Your task to perform on an android device: Add apple airpods pro to the cart on costco, then select checkout. Image 0: 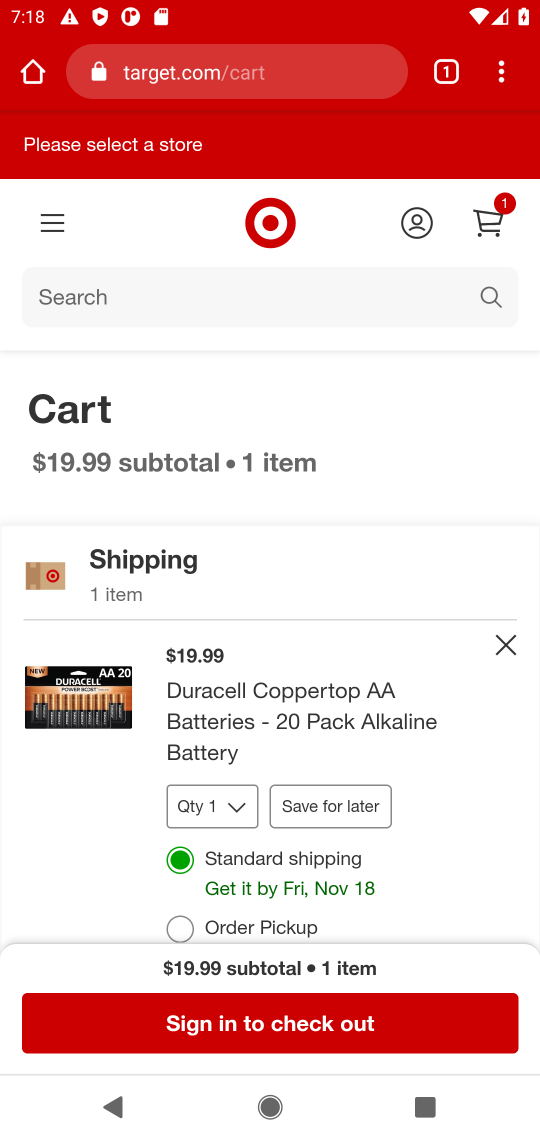
Step 0: click (441, 50)
Your task to perform on an android device: Add apple airpods pro to the cart on costco, then select checkout. Image 1: 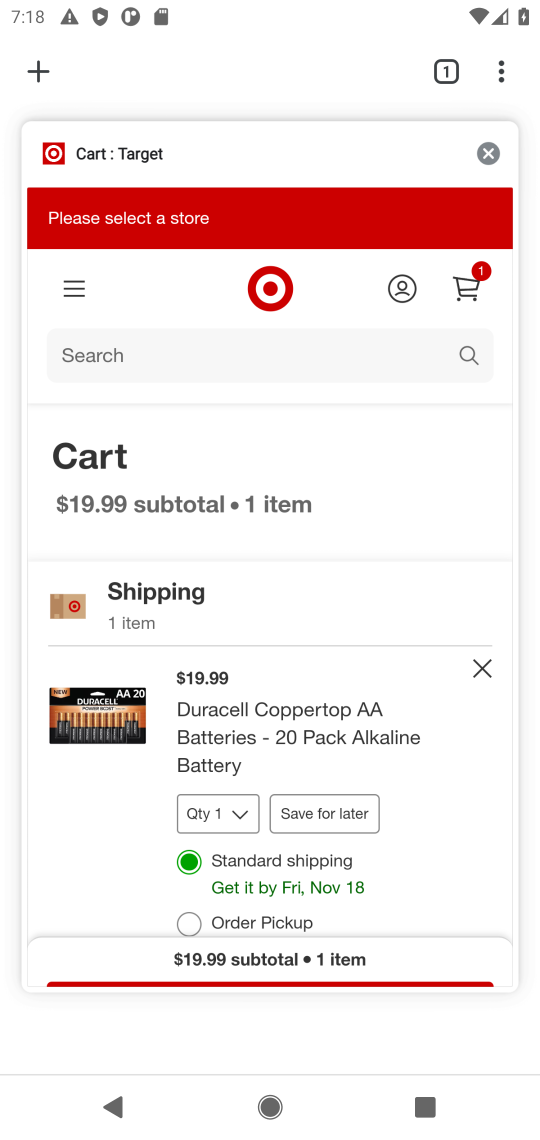
Step 1: click (17, 56)
Your task to perform on an android device: Add apple airpods pro to the cart on costco, then select checkout. Image 2: 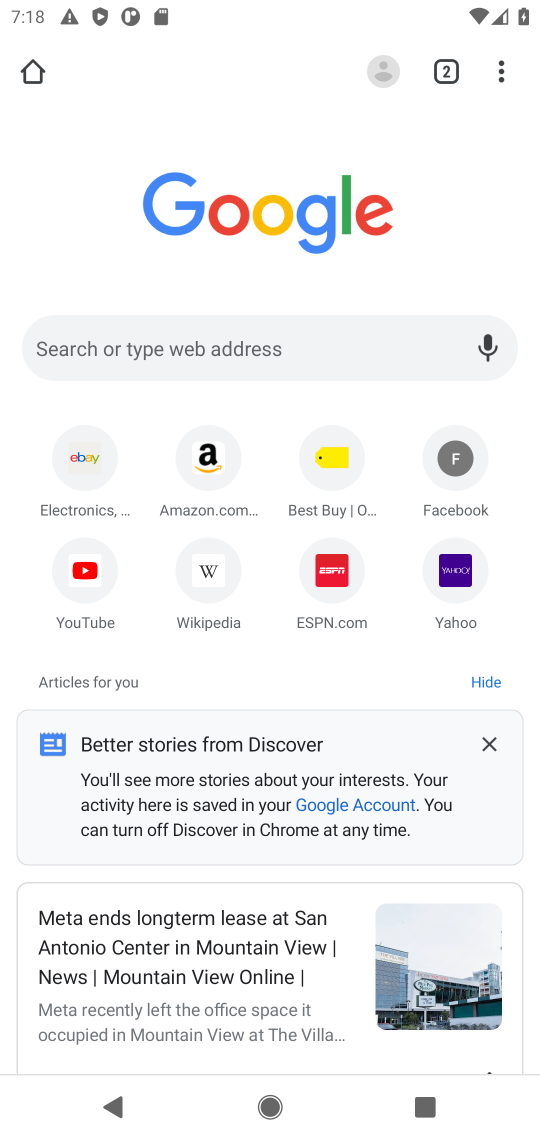
Step 2: click (232, 335)
Your task to perform on an android device: Add apple airpods pro to the cart on costco, then select checkout. Image 3: 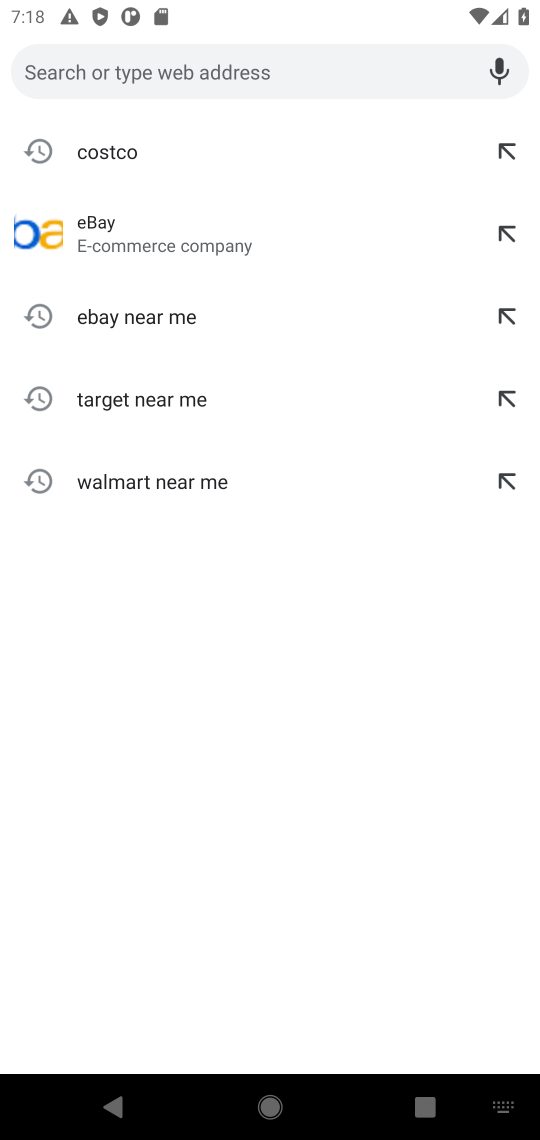
Step 3: click (190, 155)
Your task to perform on an android device: Add apple airpods pro to the cart on costco, then select checkout. Image 4: 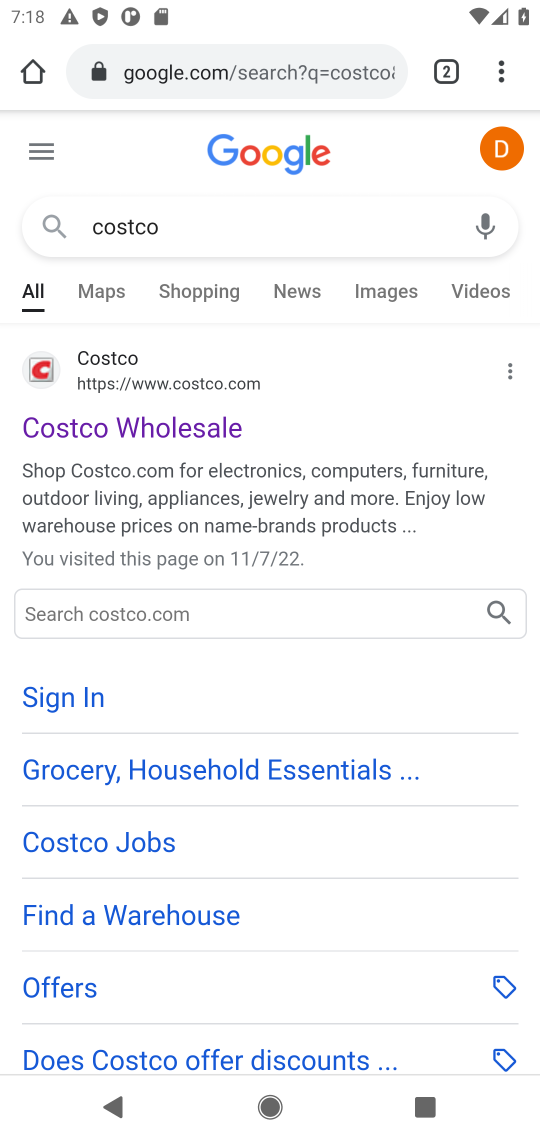
Step 4: click (217, 235)
Your task to perform on an android device: Add apple airpods pro to the cart on costco, then select checkout. Image 5: 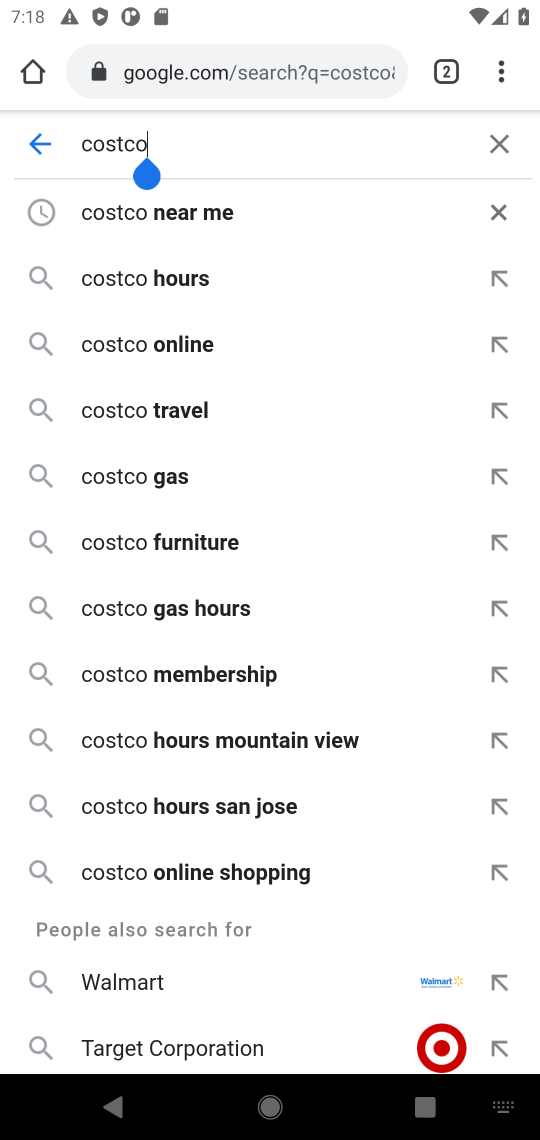
Step 5: click (278, 147)
Your task to perform on an android device: Add apple airpods pro to the cart on costco, then select checkout. Image 6: 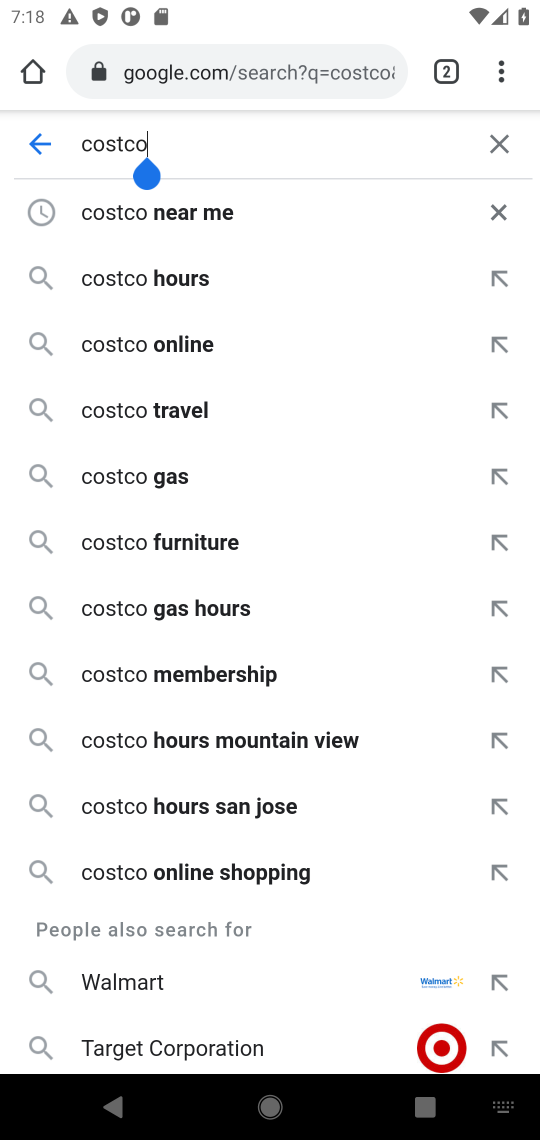
Step 6: press back button
Your task to perform on an android device: Add apple airpods pro to the cart on costco, then select checkout. Image 7: 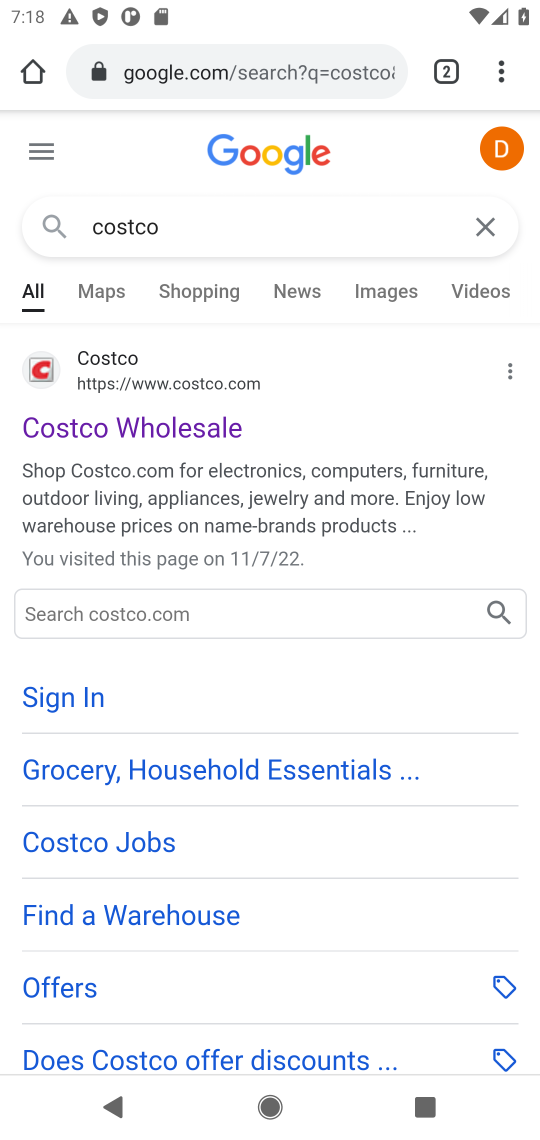
Step 7: click (184, 408)
Your task to perform on an android device: Add apple airpods pro to the cart on costco, then select checkout. Image 8: 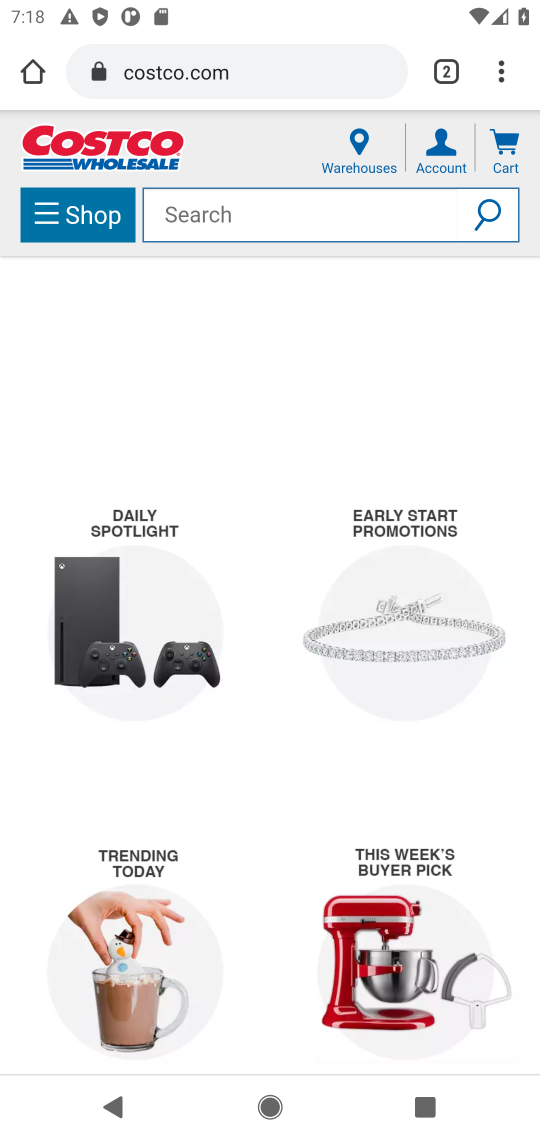
Step 8: click (209, 207)
Your task to perform on an android device: Add apple airpods pro to the cart on costco, then select checkout. Image 9: 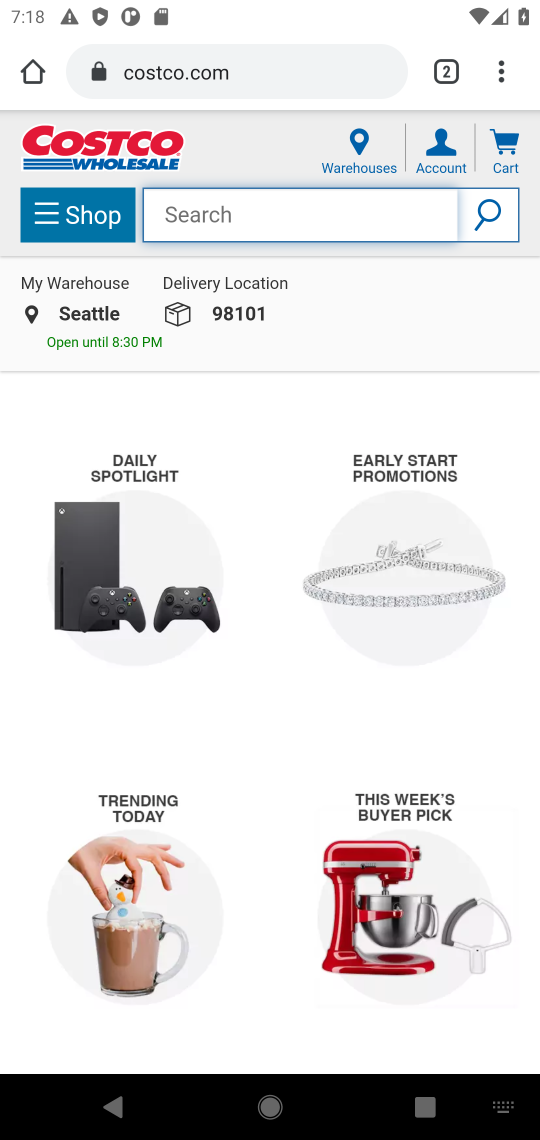
Step 9: type " apple airpods pro"
Your task to perform on an android device: Add apple airpods pro to the cart on costco, then select checkout. Image 10: 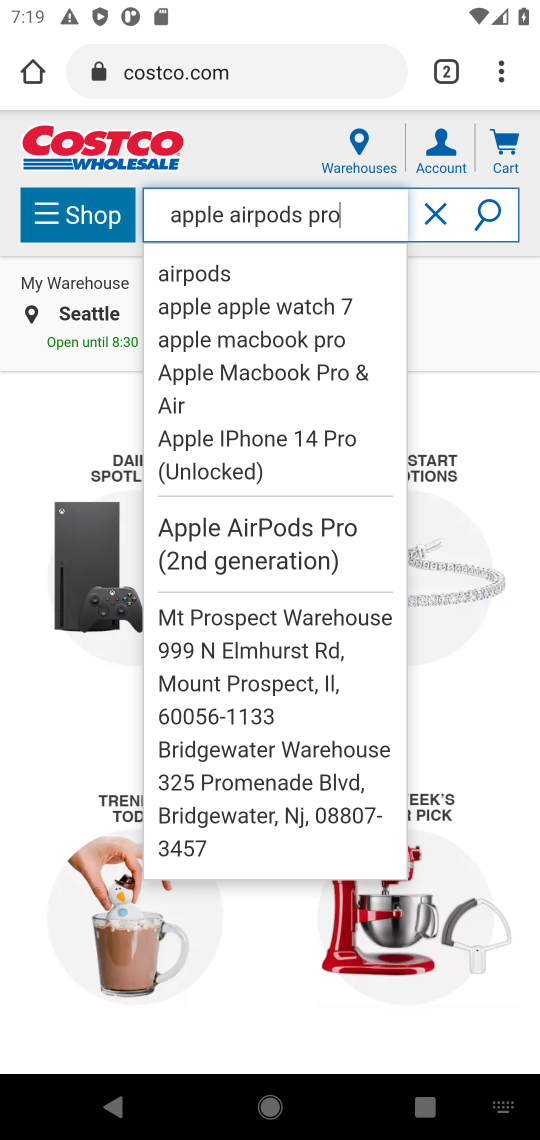
Step 10: click (425, 215)
Your task to perform on an android device: Add apple airpods pro to the cart on costco, then select checkout. Image 11: 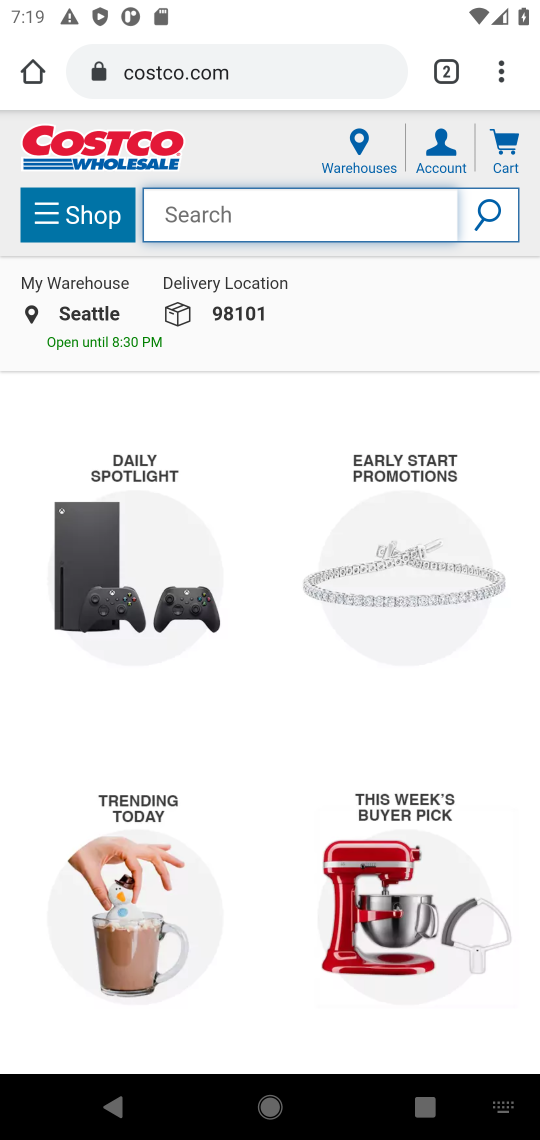
Step 11: click (192, 221)
Your task to perform on an android device: Add apple airpods pro to the cart on costco, then select checkout. Image 12: 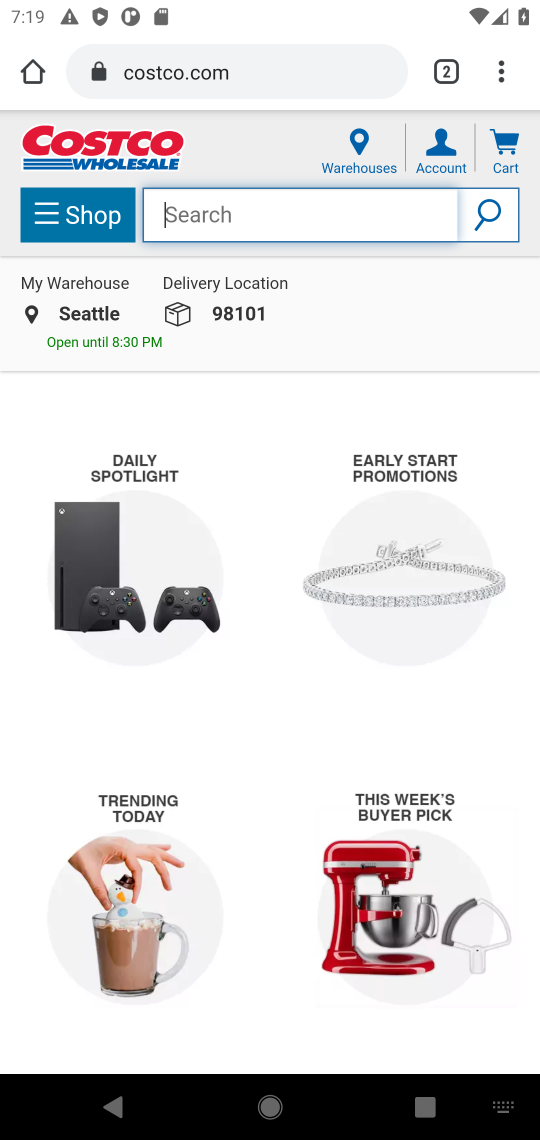
Step 12: type " "
Your task to perform on an android device: Add apple airpods pro to the cart on costco, then select checkout. Image 13: 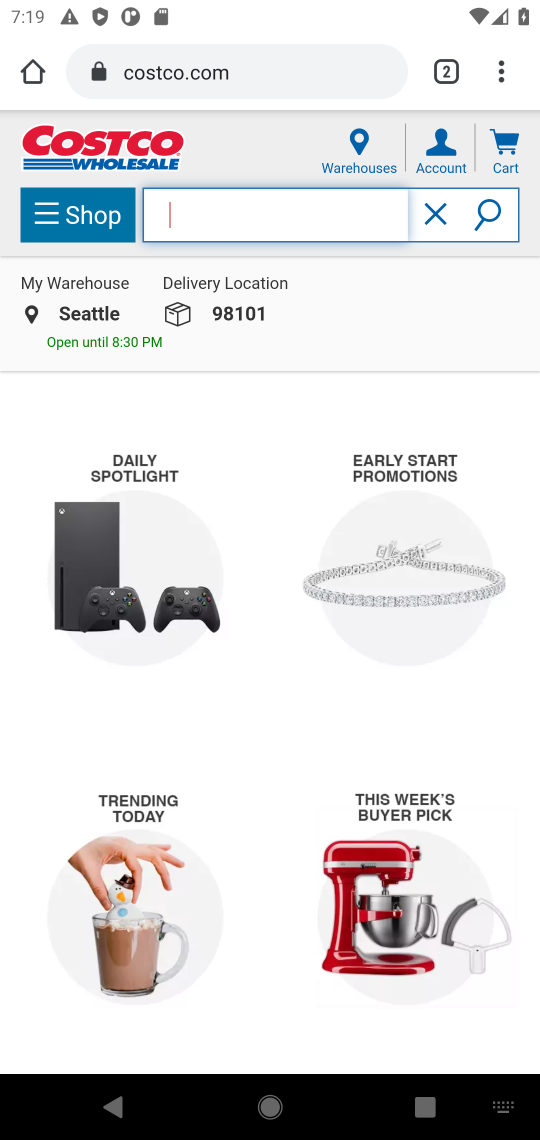
Step 13: type " "
Your task to perform on an android device: Add apple airpods pro to the cart on costco, then select checkout. Image 14: 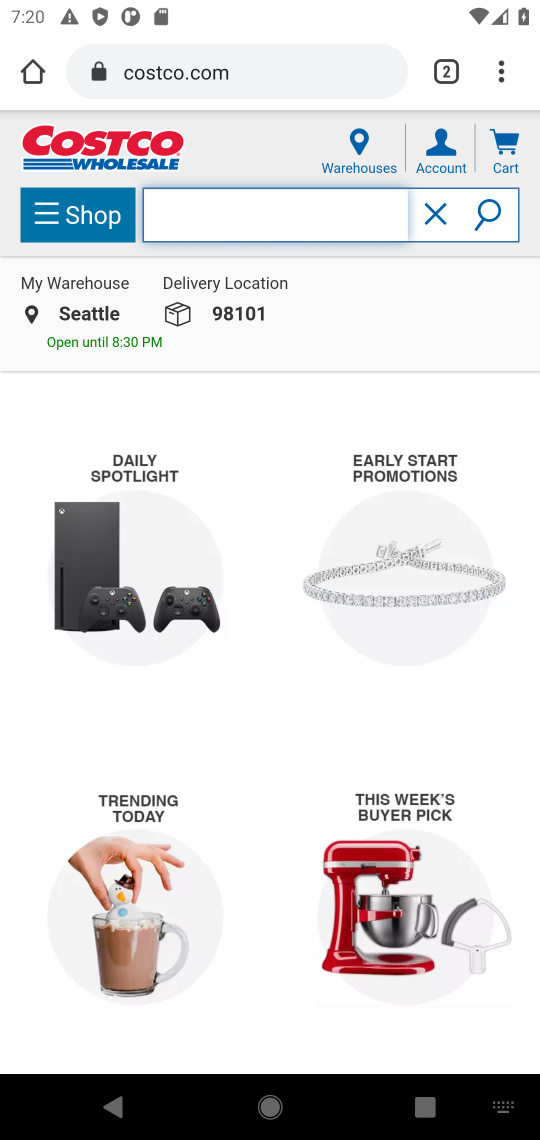
Step 14: type "apple airpods pro "
Your task to perform on an android device: Add apple airpods pro to the cart on costco, then select checkout. Image 15: 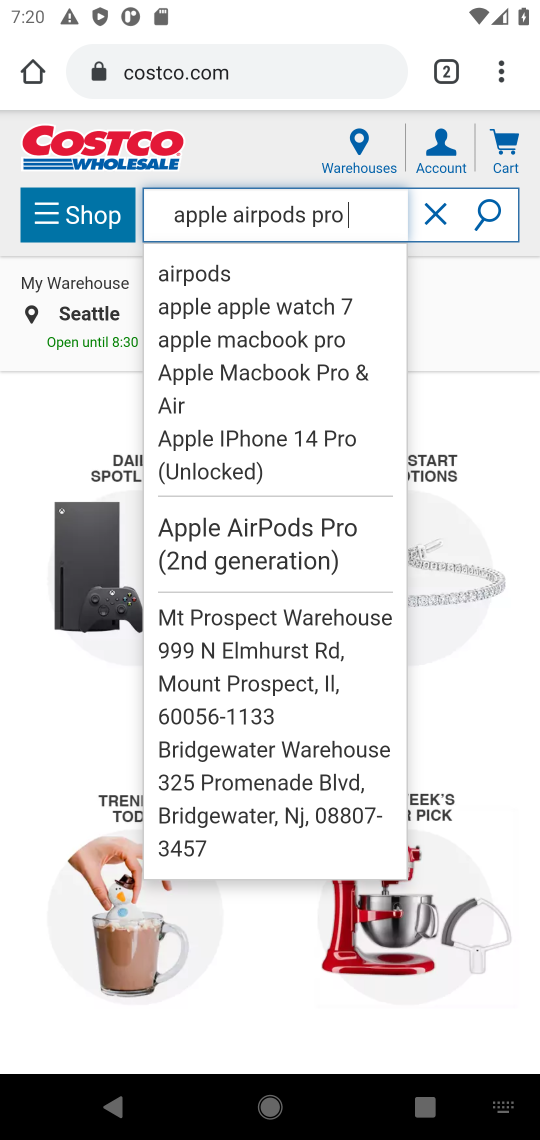
Step 15: click (263, 272)
Your task to perform on an android device: Add apple airpods pro to the cart on costco, then select checkout. Image 16: 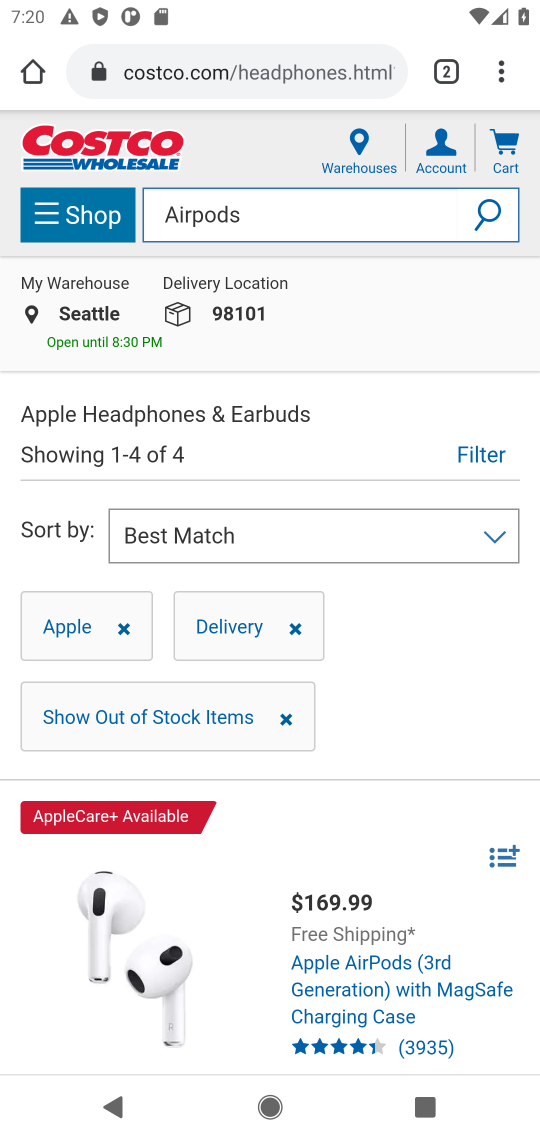
Step 16: drag from (322, 949) to (391, 598)
Your task to perform on an android device: Add apple airpods pro to the cart on costco, then select checkout. Image 17: 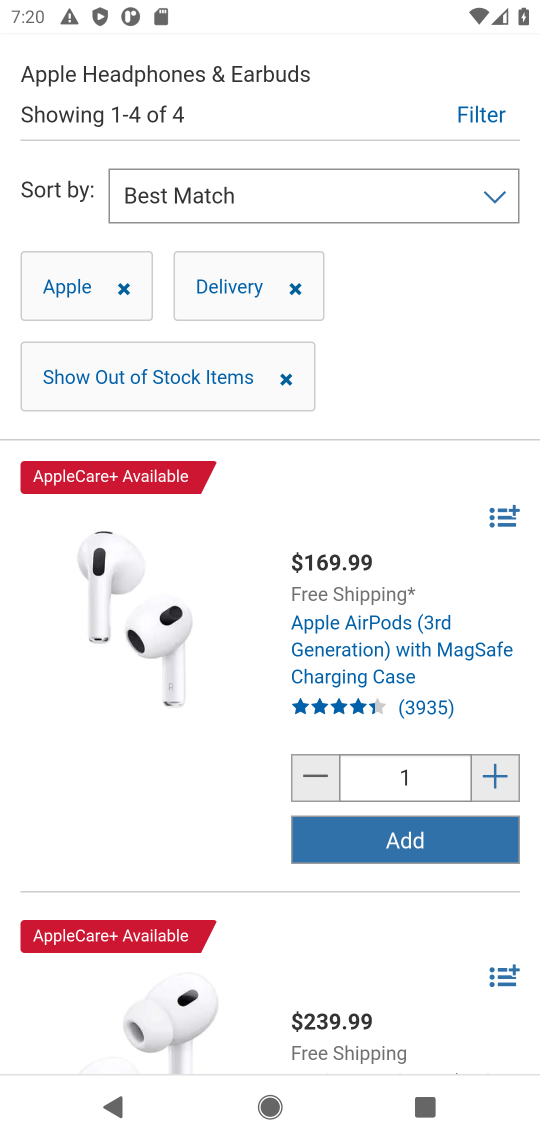
Step 17: click (440, 850)
Your task to perform on an android device: Add apple airpods pro to the cart on costco, then select checkout. Image 18: 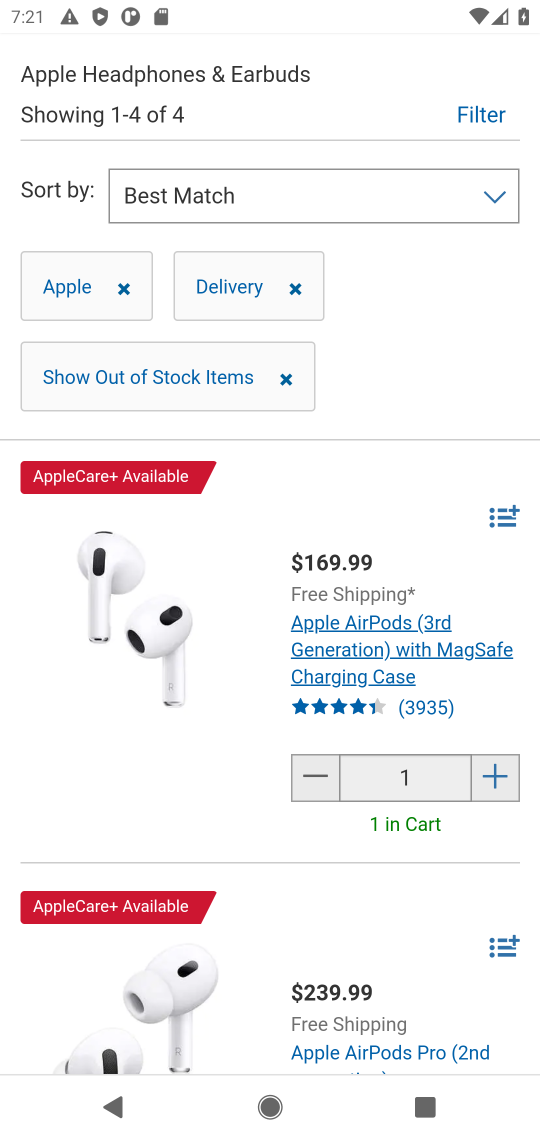
Step 18: task complete